Your task to perform on an android device: Go to Android settings Image 0: 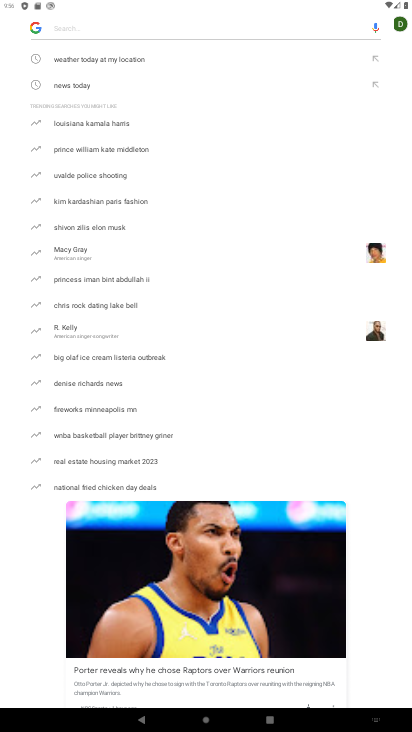
Step 0: press home button
Your task to perform on an android device: Go to Android settings Image 1: 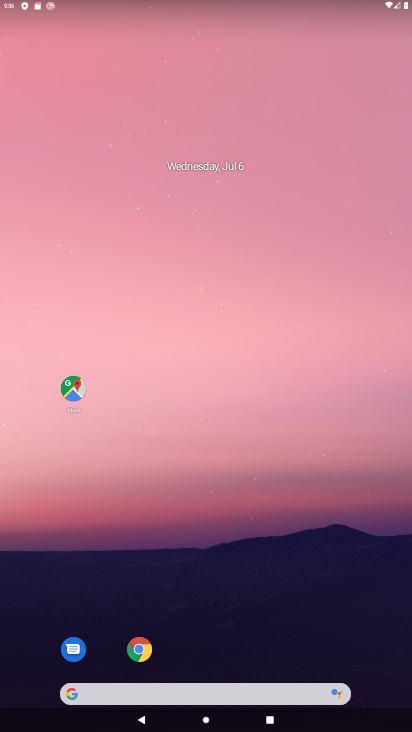
Step 1: drag from (253, 639) to (297, 1)
Your task to perform on an android device: Go to Android settings Image 2: 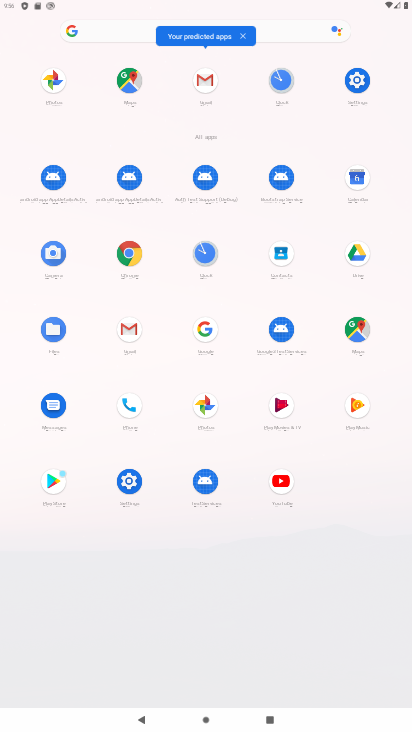
Step 2: click (360, 84)
Your task to perform on an android device: Go to Android settings Image 3: 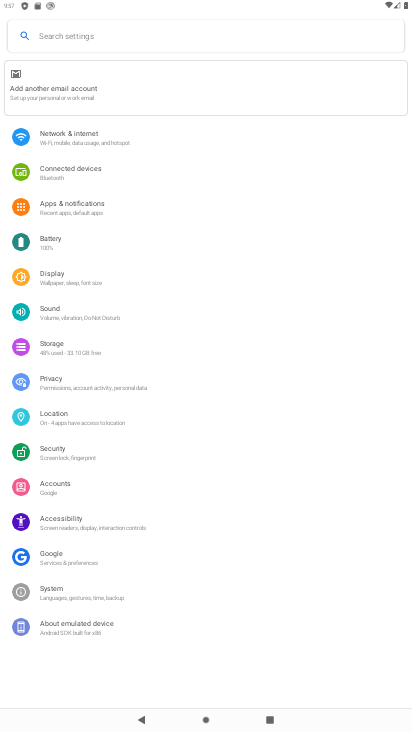
Step 3: task complete